Your task to perform on an android device: toggle location history Image 0: 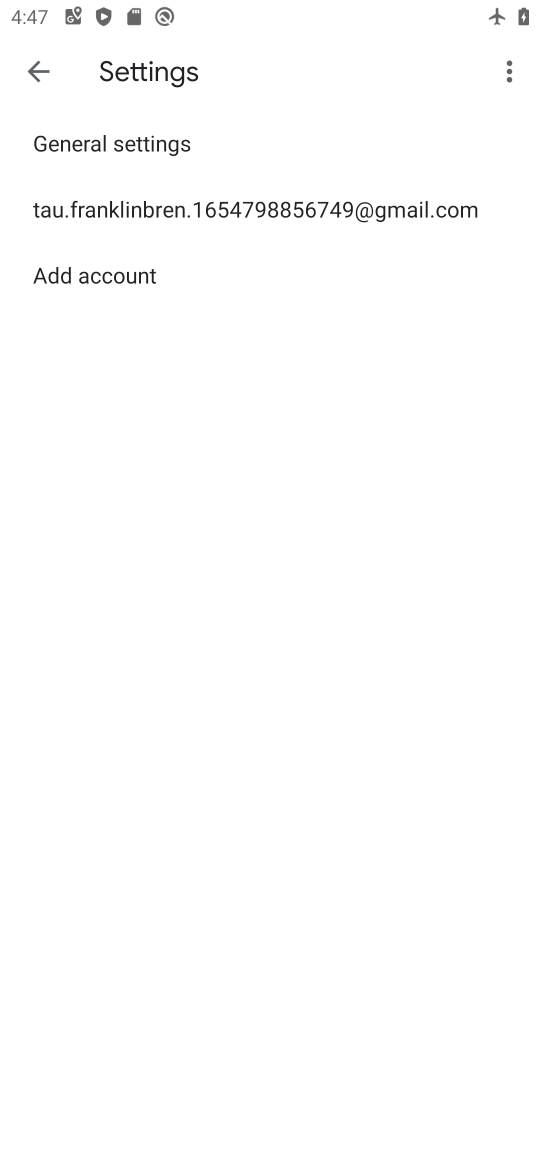
Step 0: press home button
Your task to perform on an android device: toggle location history Image 1: 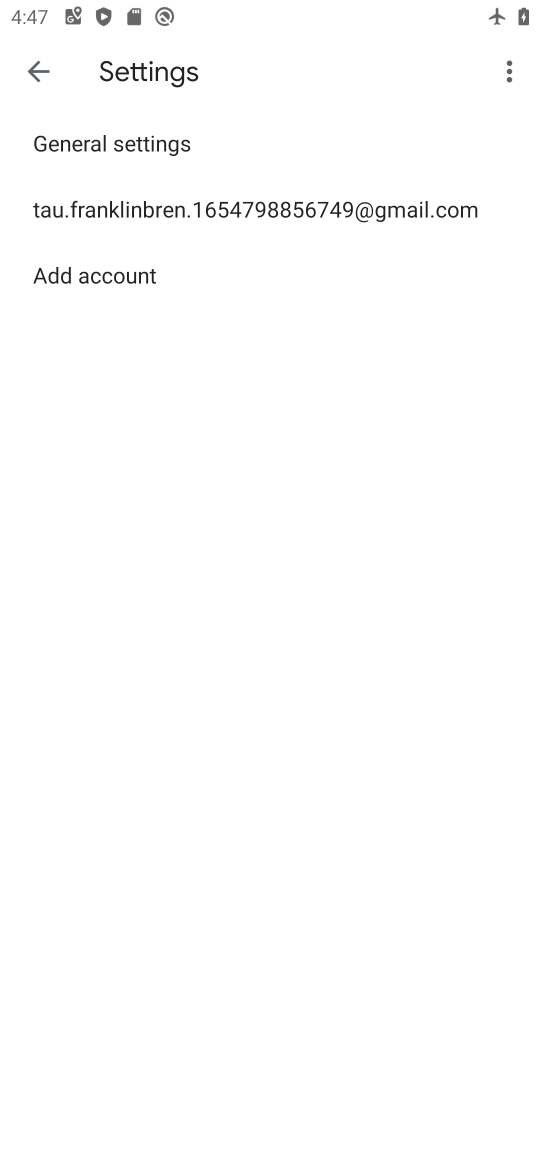
Step 1: press home button
Your task to perform on an android device: toggle location history Image 2: 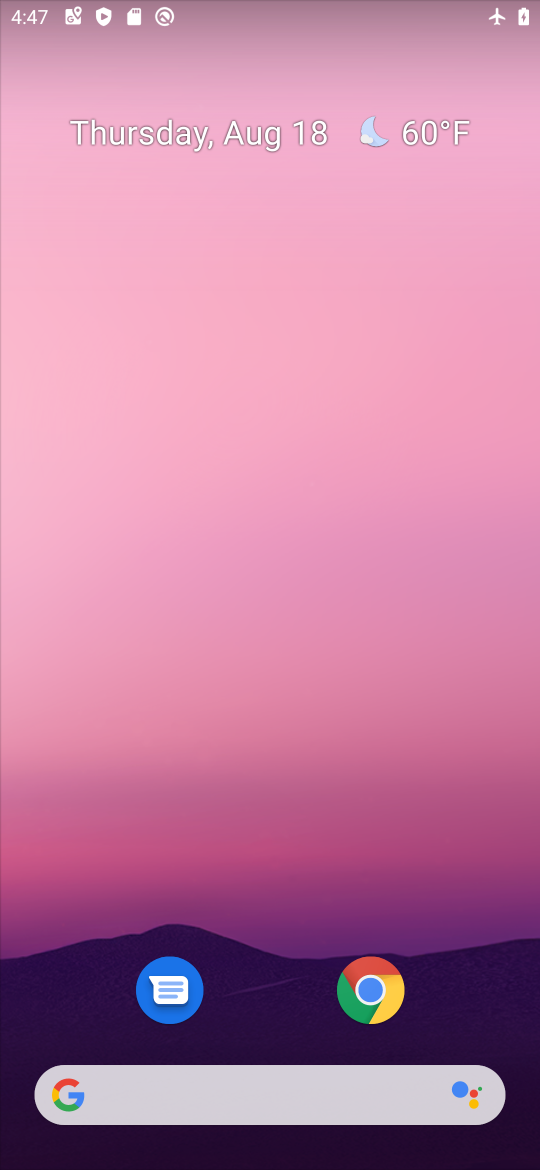
Step 2: drag from (277, 946) to (499, 203)
Your task to perform on an android device: toggle location history Image 3: 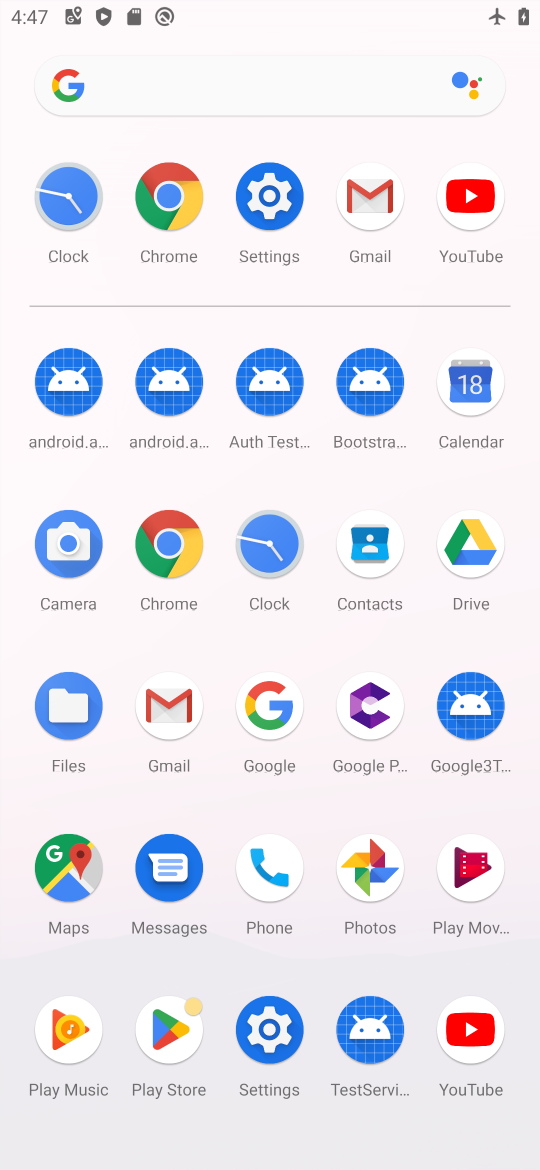
Step 3: click (276, 1020)
Your task to perform on an android device: toggle location history Image 4: 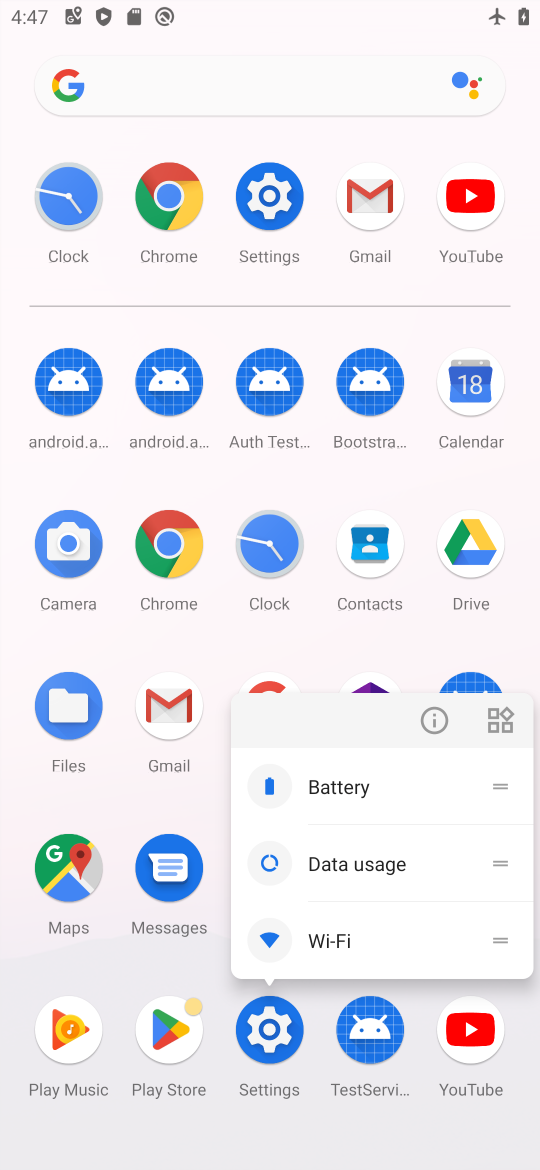
Step 4: click (267, 1033)
Your task to perform on an android device: toggle location history Image 5: 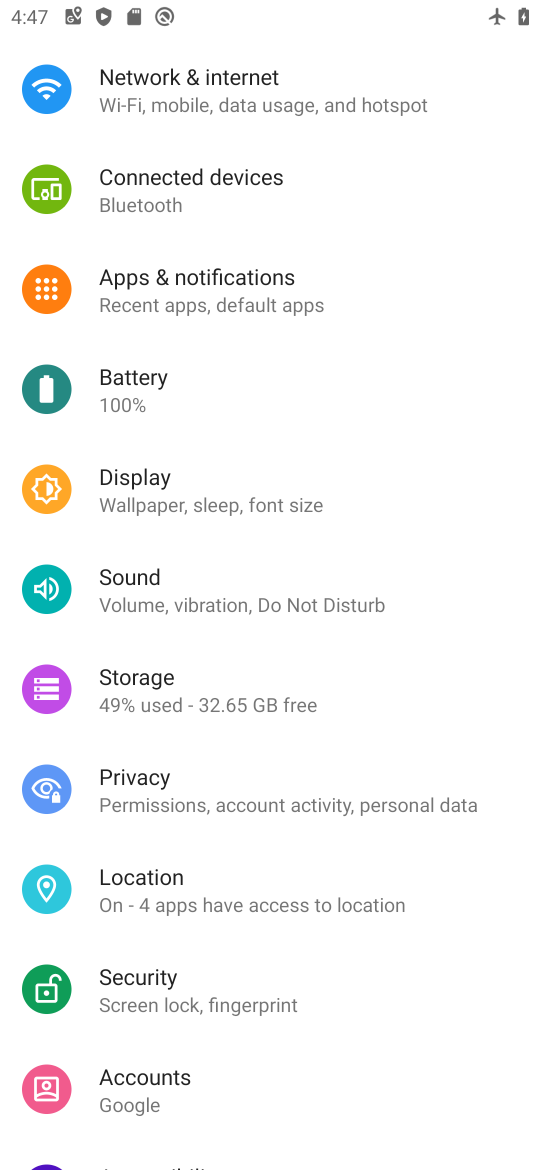
Step 5: click (207, 885)
Your task to perform on an android device: toggle location history Image 6: 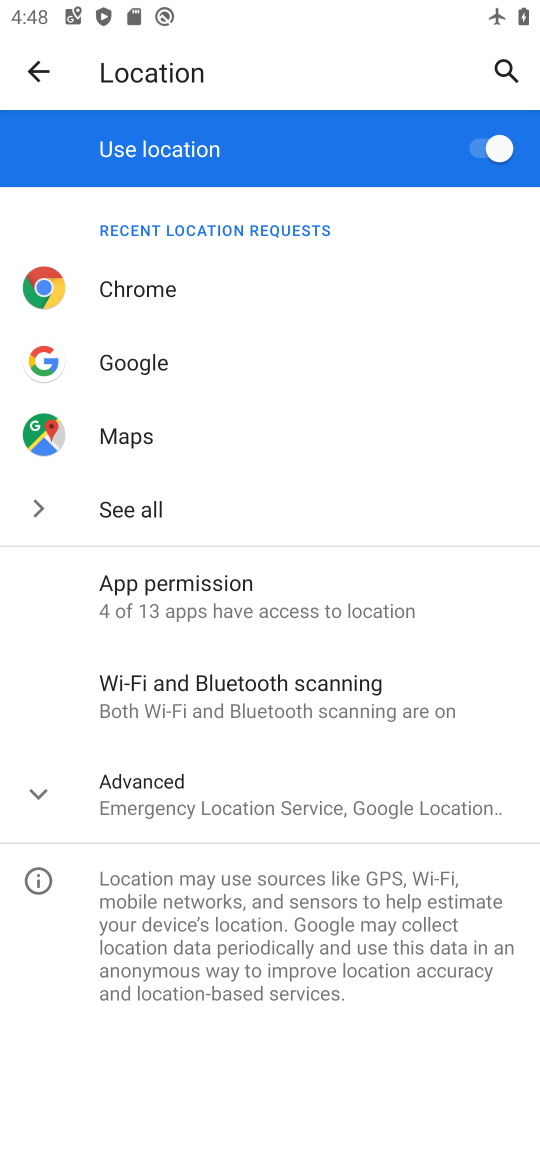
Step 6: click (493, 128)
Your task to perform on an android device: toggle location history Image 7: 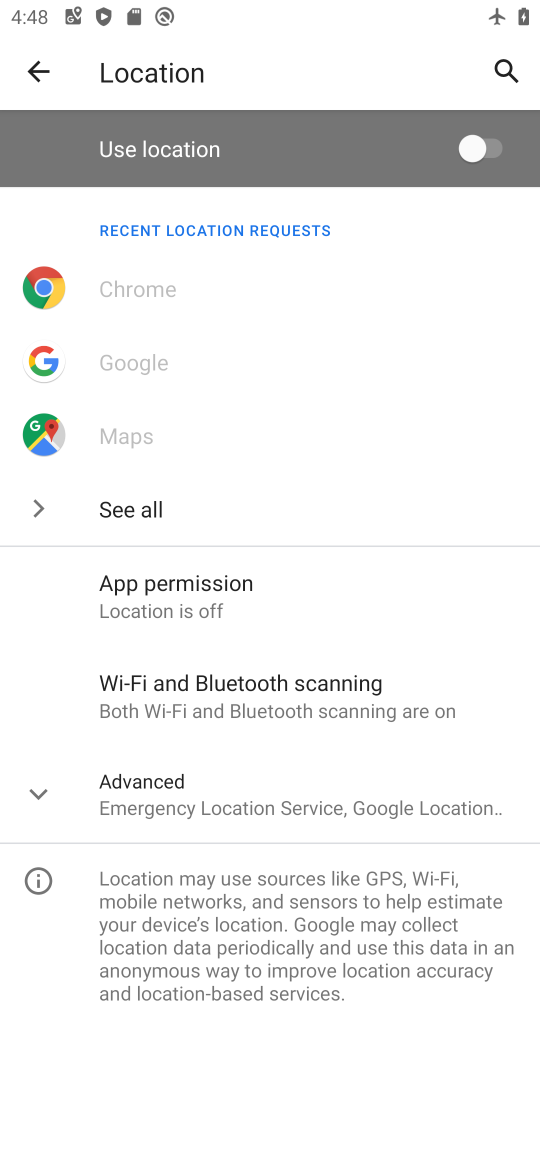
Step 7: task complete